Your task to perform on an android device: turn pop-ups on in chrome Image 0: 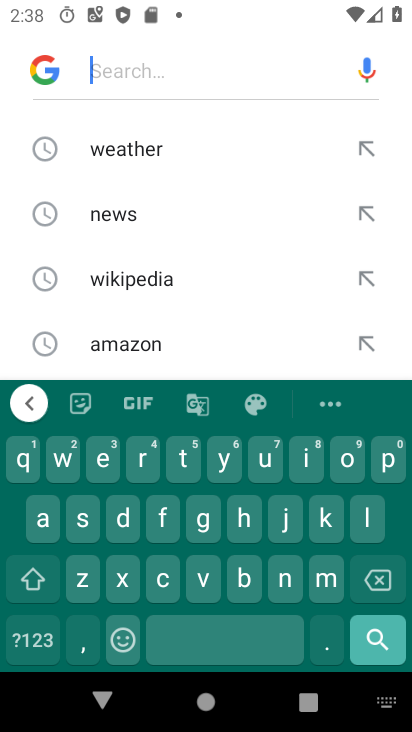
Step 0: press home button
Your task to perform on an android device: turn pop-ups on in chrome Image 1: 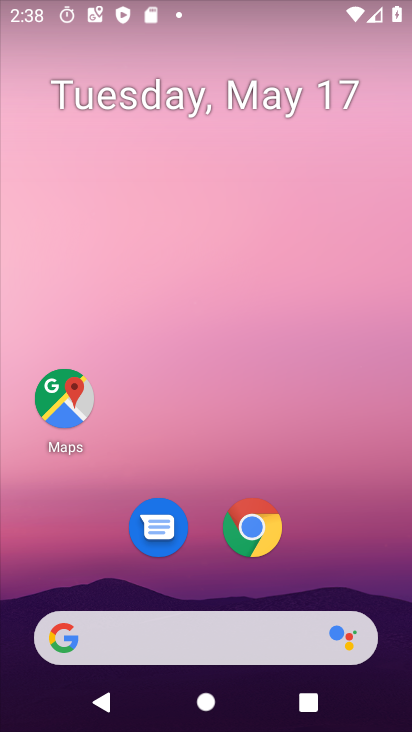
Step 1: drag from (232, 672) to (312, 203)
Your task to perform on an android device: turn pop-ups on in chrome Image 2: 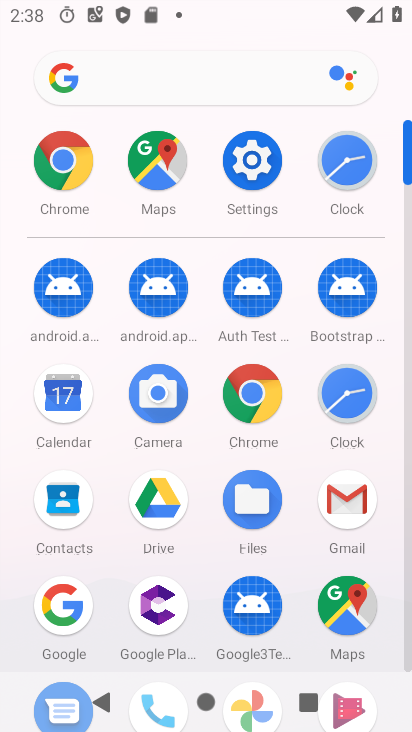
Step 2: click (94, 153)
Your task to perform on an android device: turn pop-ups on in chrome Image 3: 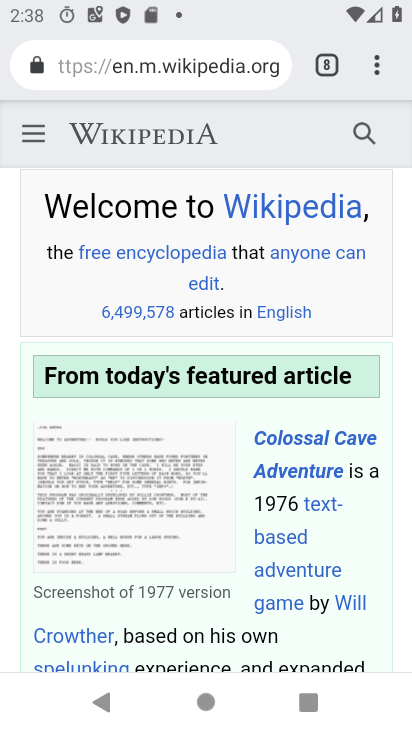
Step 3: click (360, 69)
Your task to perform on an android device: turn pop-ups on in chrome Image 4: 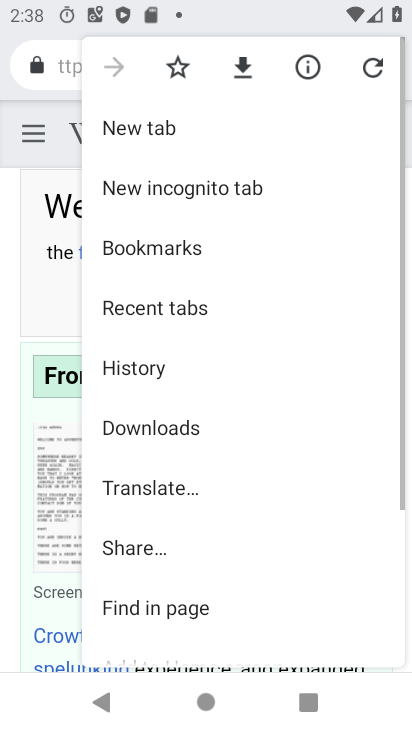
Step 4: drag from (236, 543) to (260, 345)
Your task to perform on an android device: turn pop-ups on in chrome Image 5: 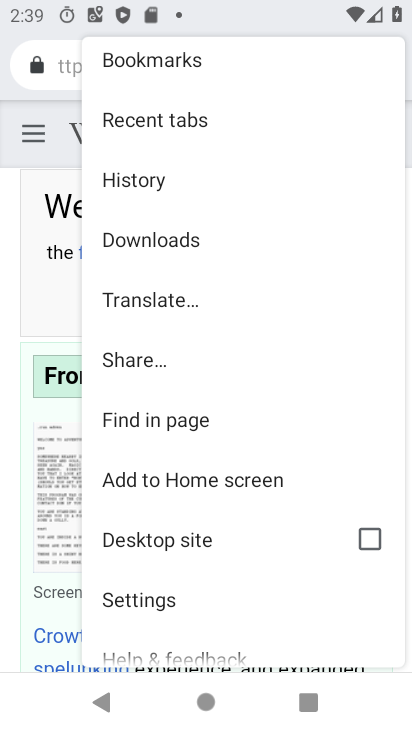
Step 5: drag from (217, 453) to (220, 367)
Your task to perform on an android device: turn pop-ups on in chrome Image 6: 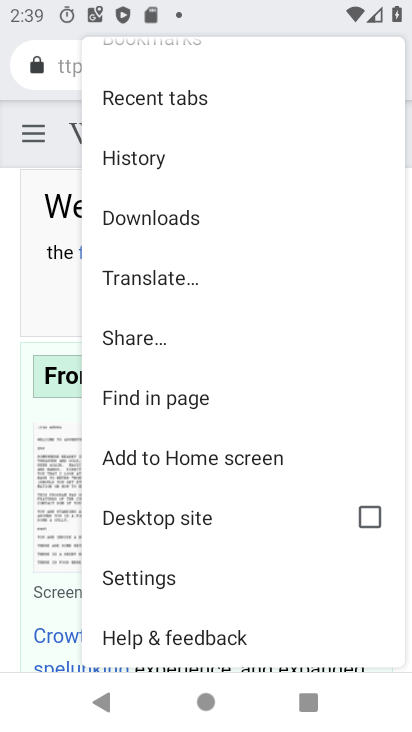
Step 6: click (160, 562)
Your task to perform on an android device: turn pop-ups on in chrome Image 7: 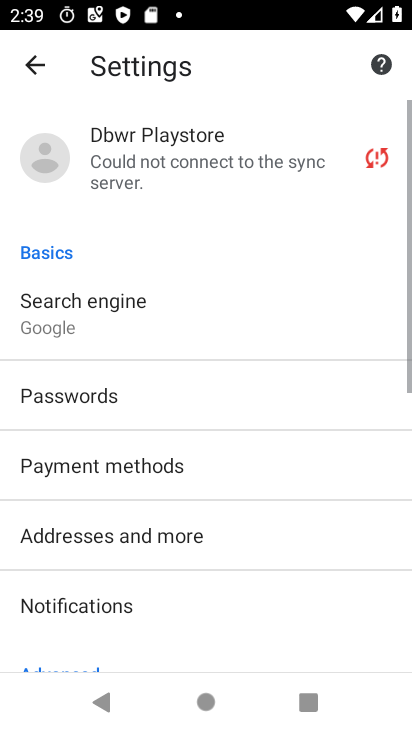
Step 7: drag from (160, 513) to (179, 334)
Your task to perform on an android device: turn pop-ups on in chrome Image 8: 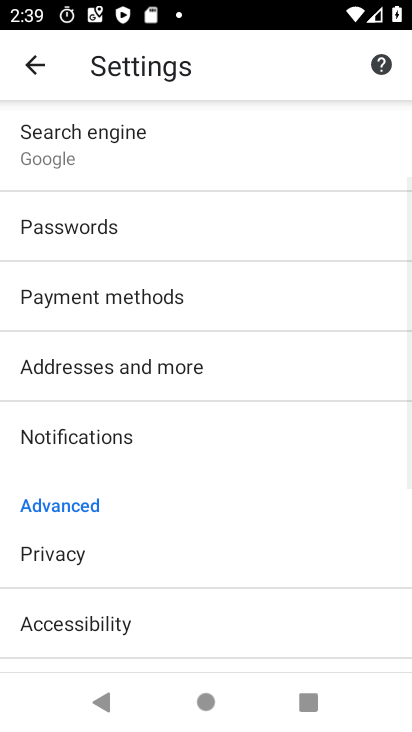
Step 8: drag from (147, 526) to (146, 374)
Your task to perform on an android device: turn pop-ups on in chrome Image 9: 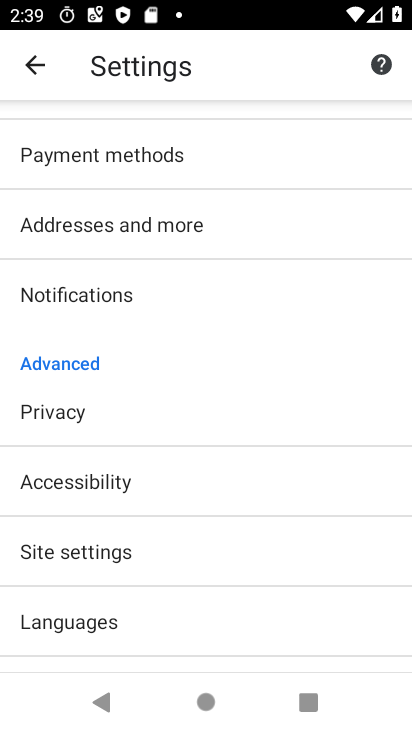
Step 9: click (47, 553)
Your task to perform on an android device: turn pop-ups on in chrome Image 10: 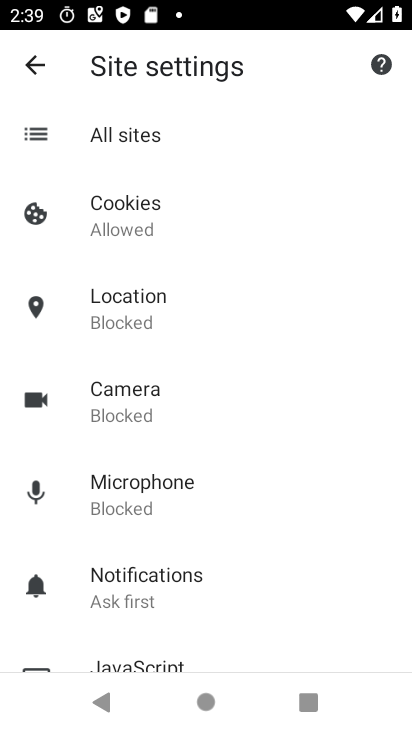
Step 10: drag from (111, 657) to (167, 403)
Your task to perform on an android device: turn pop-ups on in chrome Image 11: 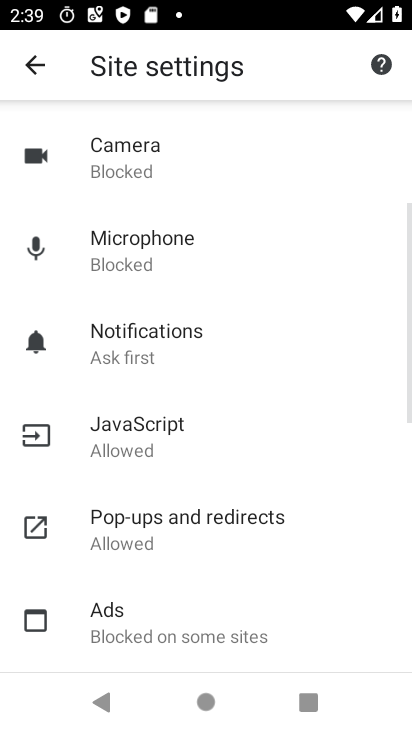
Step 11: click (156, 533)
Your task to perform on an android device: turn pop-ups on in chrome Image 12: 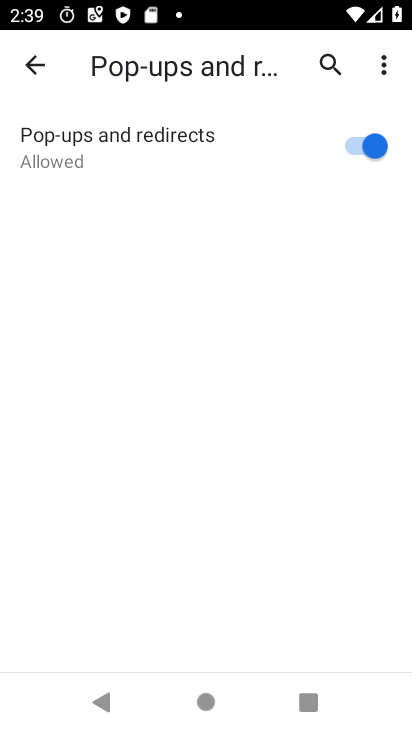
Step 12: task complete